Your task to perform on an android device: stop showing notifications on the lock screen Image 0: 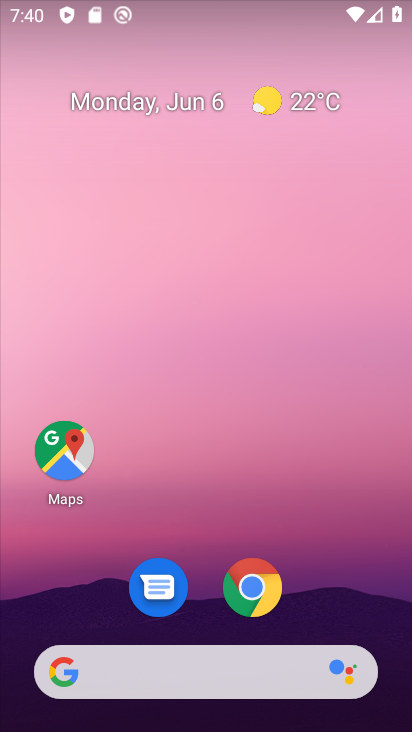
Step 0: drag from (216, 651) to (211, 360)
Your task to perform on an android device: stop showing notifications on the lock screen Image 1: 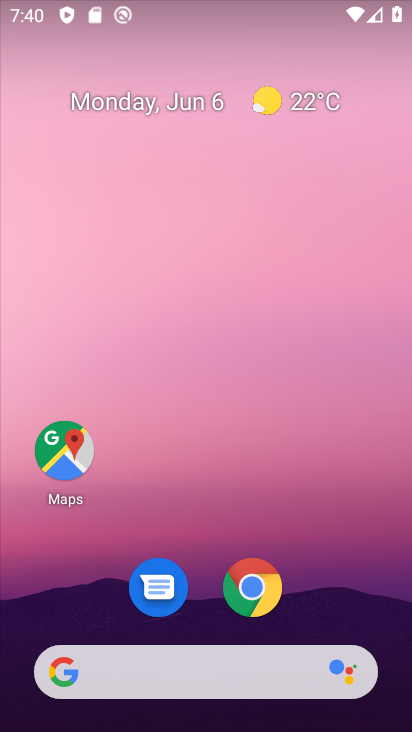
Step 1: drag from (205, 632) to (175, 315)
Your task to perform on an android device: stop showing notifications on the lock screen Image 2: 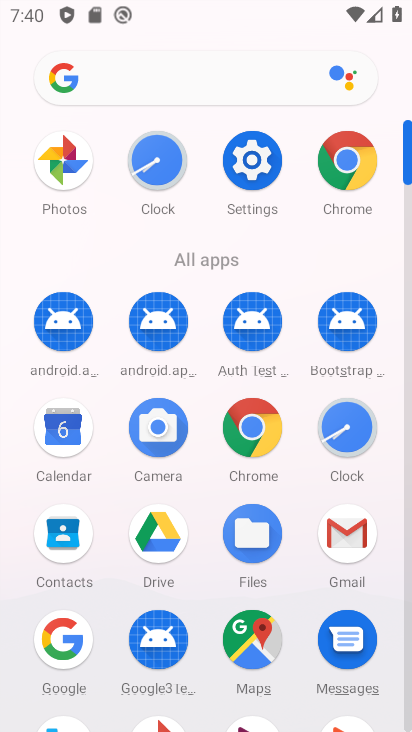
Step 2: click (256, 151)
Your task to perform on an android device: stop showing notifications on the lock screen Image 3: 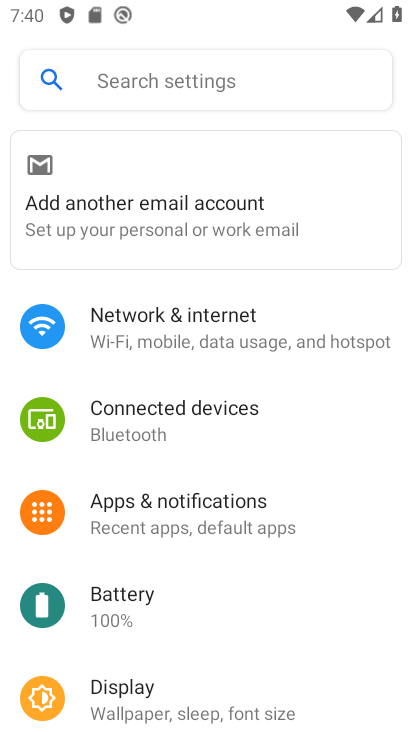
Step 3: drag from (187, 686) to (187, 382)
Your task to perform on an android device: stop showing notifications on the lock screen Image 4: 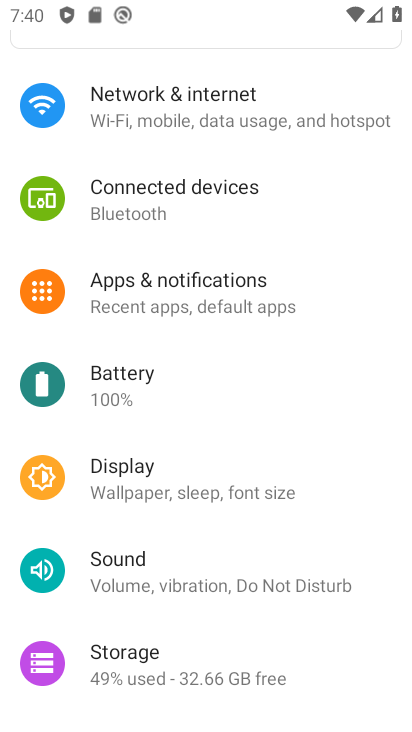
Step 4: click (178, 291)
Your task to perform on an android device: stop showing notifications on the lock screen Image 5: 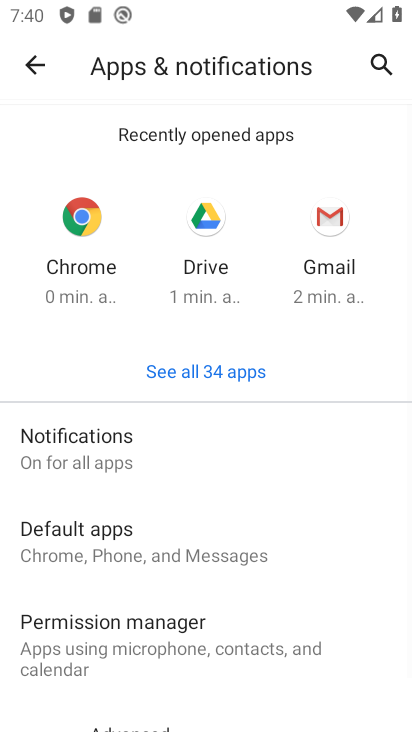
Step 5: click (78, 435)
Your task to perform on an android device: stop showing notifications on the lock screen Image 6: 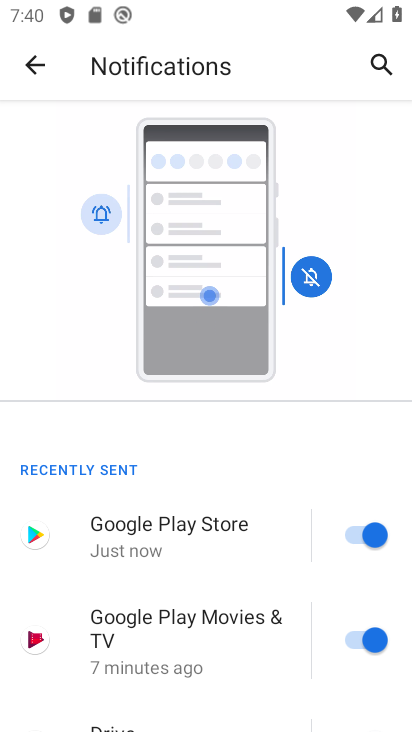
Step 6: drag from (132, 688) to (112, 400)
Your task to perform on an android device: stop showing notifications on the lock screen Image 7: 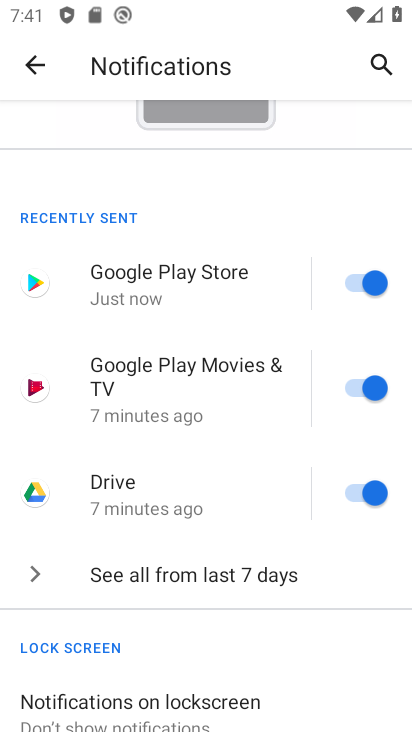
Step 7: click (153, 710)
Your task to perform on an android device: stop showing notifications on the lock screen Image 8: 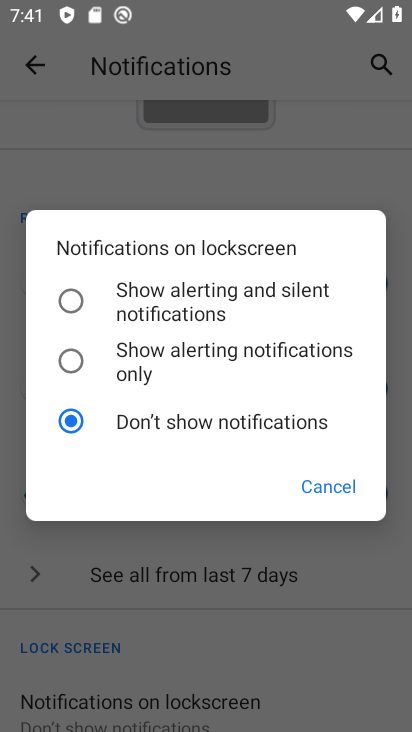
Step 8: click (344, 495)
Your task to perform on an android device: stop showing notifications on the lock screen Image 9: 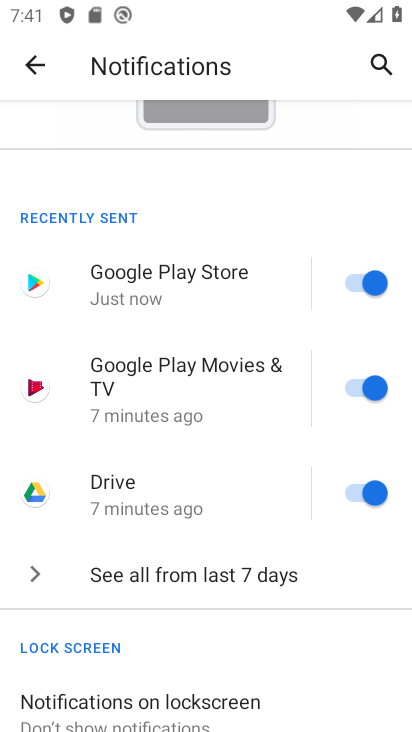
Step 9: task complete